Your task to perform on an android device: turn on improve location accuracy Image 0: 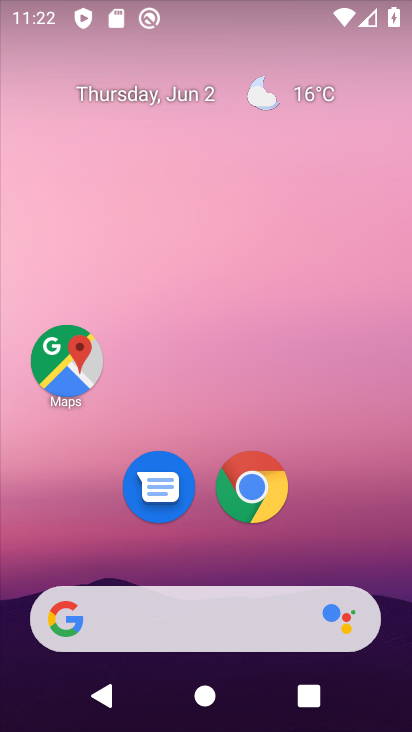
Step 0: press home button
Your task to perform on an android device: turn on improve location accuracy Image 1: 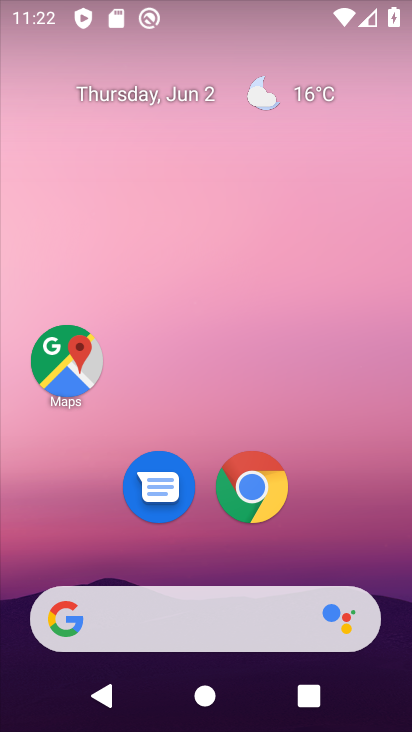
Step 1: drag from (333, 504) to (290, 88)
Your task to perform on an android device: turn on improve location accuracy Image 2: 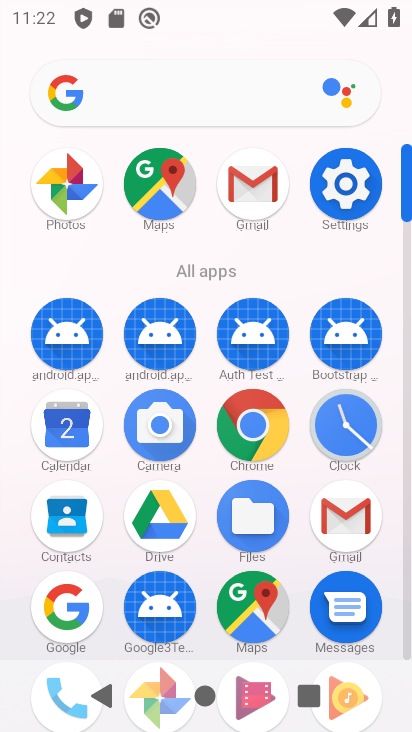
Step 2: click (347, 192)
Your task to perform on an android device: turn on improve location accuracy Image 3: 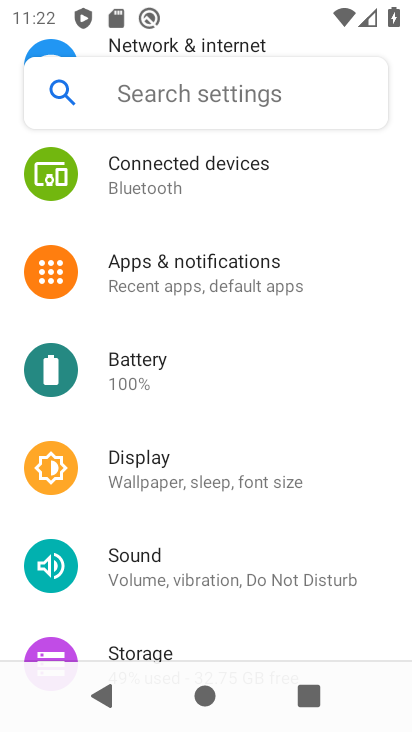
Step 3: drag from (342, 237) to (226, 8)
Your task to perform on an android device: turn on improve location accuracy Image 4: 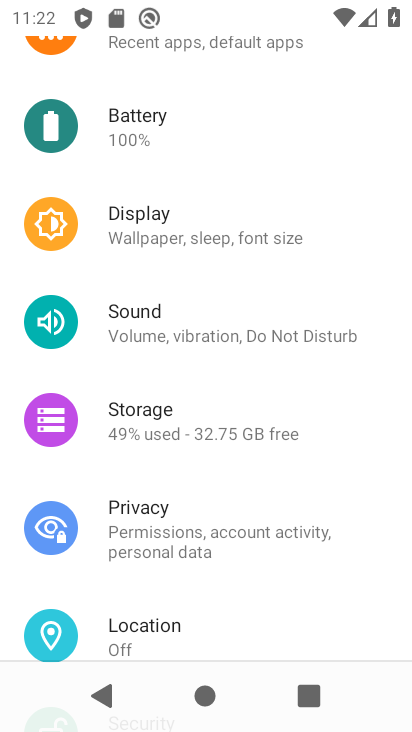
Step 4: click (157, 627)
Your task to perform on an android device: turn on improve location accuracy Image 5: 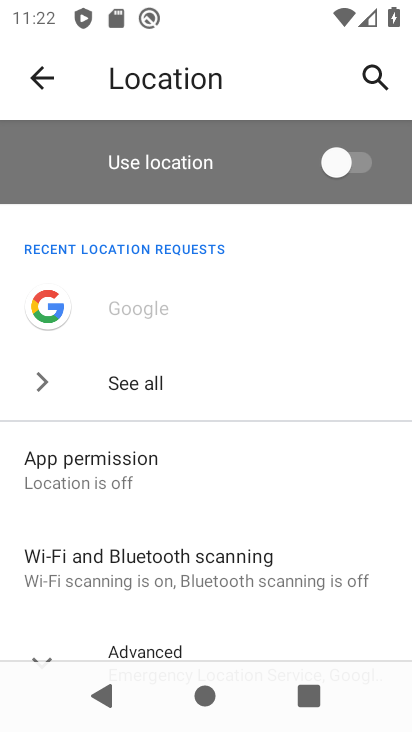
Step 5: drag from (256, 609) to (216, 364)
Your task to perform on an android device: turn on improve location accuracy Image 6: 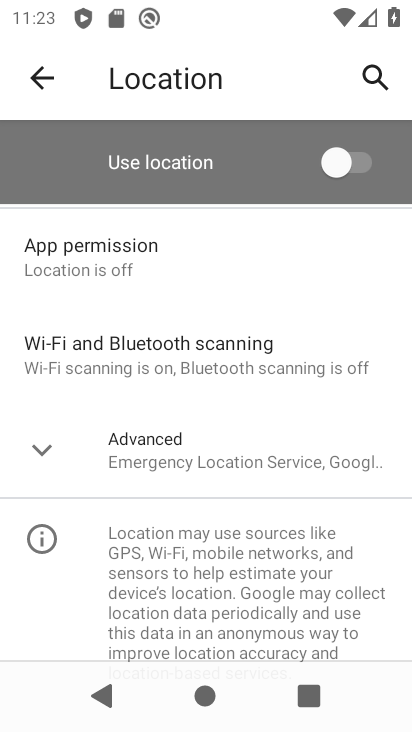
Step 6: click (40, 451)
Your task to perform on an android device: turn on improve location accuracy Image 7: 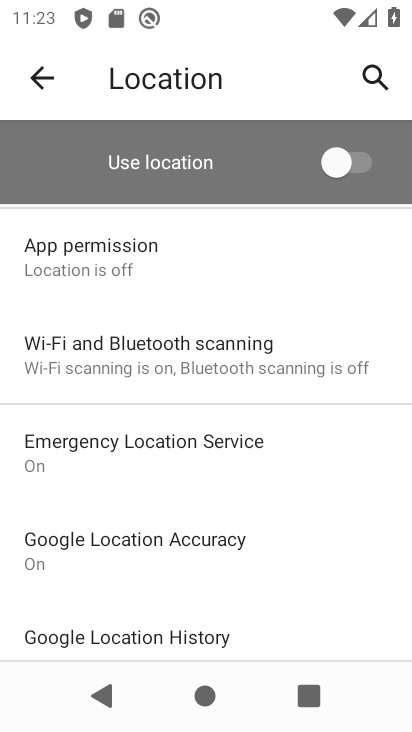
Step 7: click (164, 548)
Your task to perform on an android device: turn on improve location accuracy Image 8: 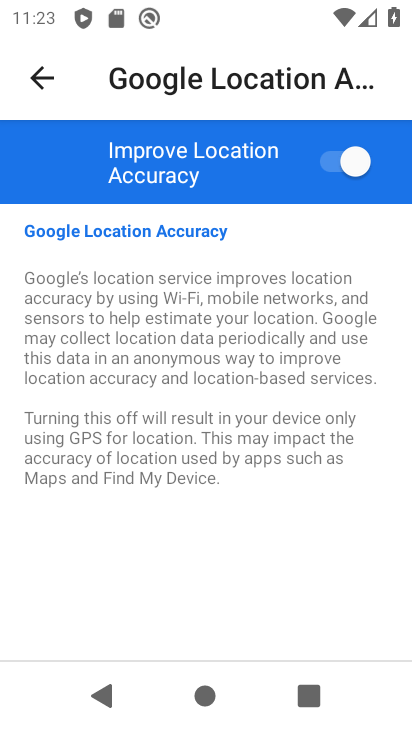
Step 8: task complete